Your task to perform on an android device: all mails in gmail Image 0: 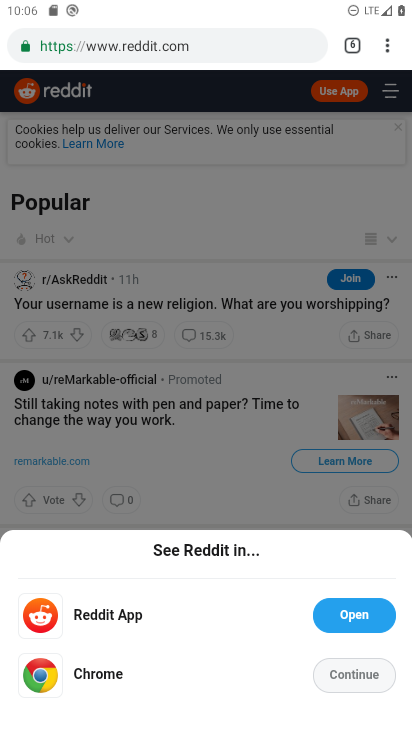
Step 0: press home button
Your task to perform on an android device: all mails in gmail Image 1: 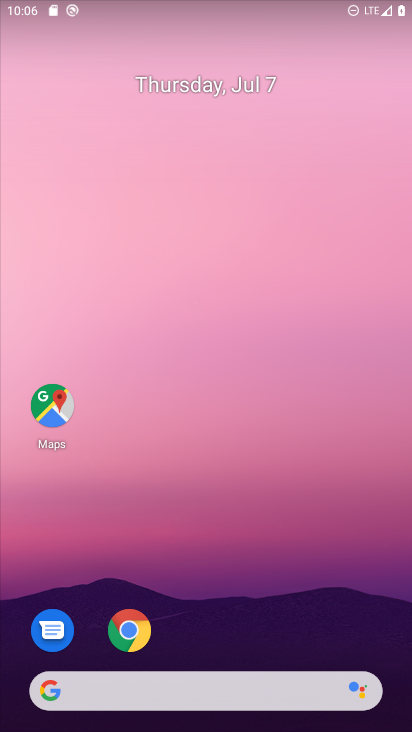
Step 1: drag from (189, 626) to (196, 181)
Your task to perform on an android device: all mails in gmail Image 2: 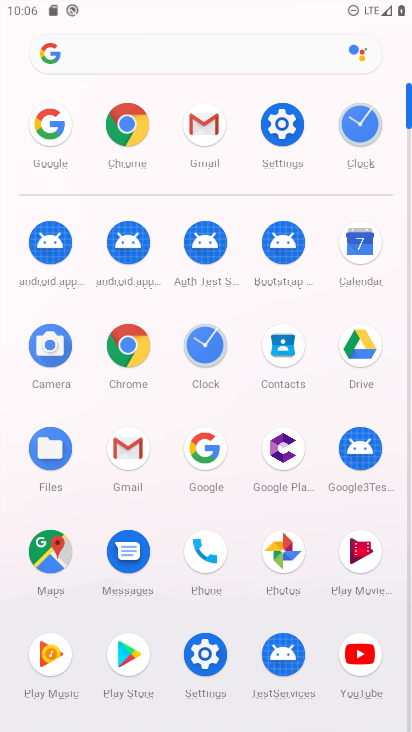
Step 2: click (187, 126)
Your task to perform on an android device: all mails in gmail Image 3: 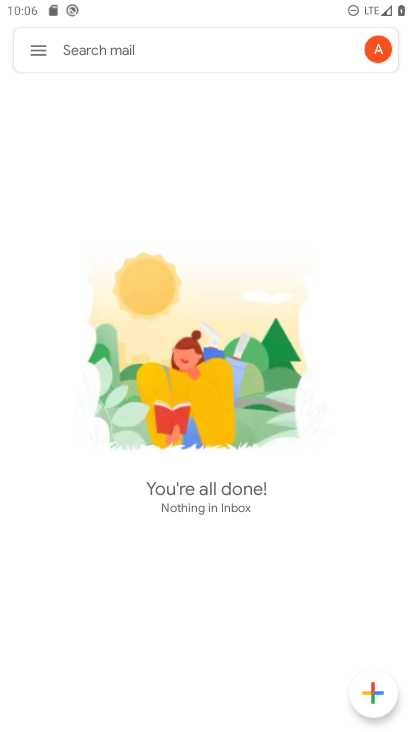
Step 3: click (30, 62)
Your task to perform on an android device: all mails in gmail Image 4: 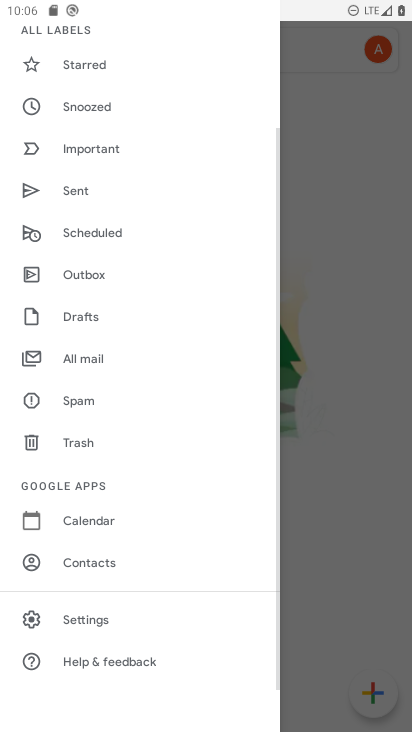
Step 4: click (90, 362)
Your task to perform on an android device: all mails in gmail Image 5: 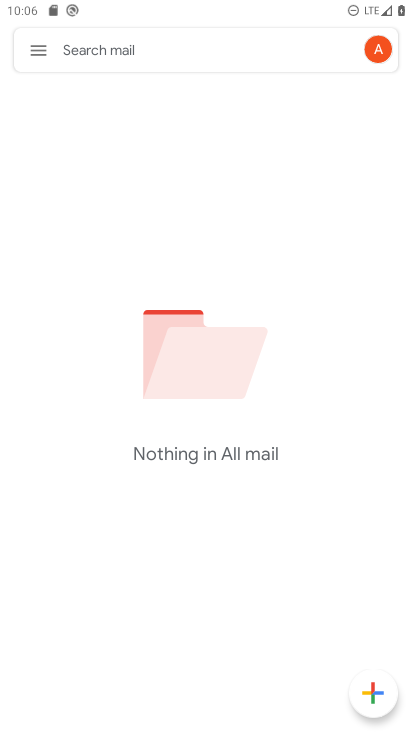
Step 5: task complete